Your task to perform on an android device: Go to display settings Image 0: 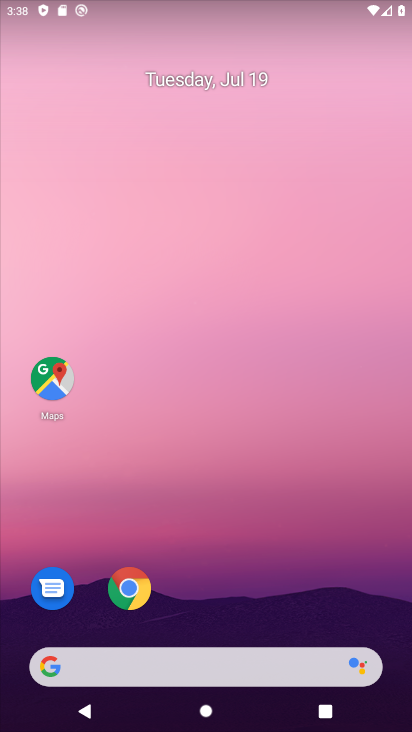
Step 0: drag from (282, 609) to (233, 44)
Your task to perform on an android device: Go to display settings Image 1: 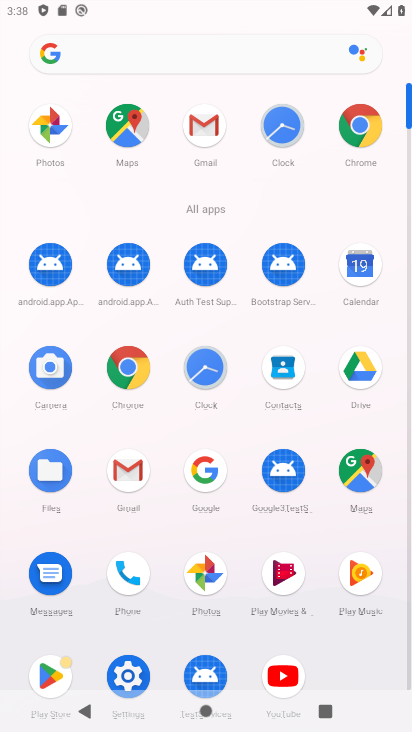
Step 1: click (127, 673)
Your task to perform on an android device: Go to display settings Image 2: 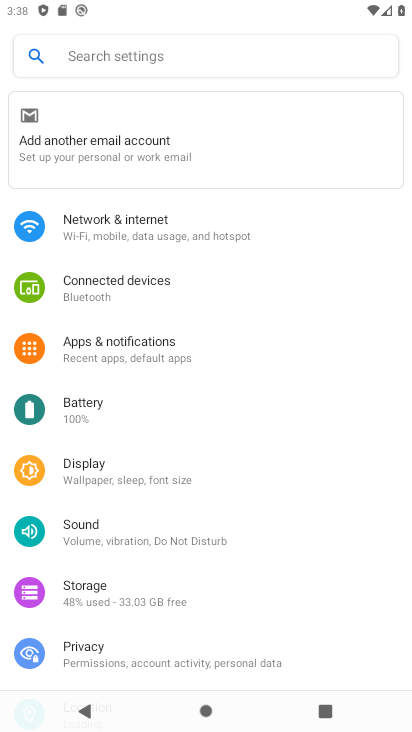
Step 2: click (138, 478)
Your task to perform on an android device: Go to display settings Image 3: 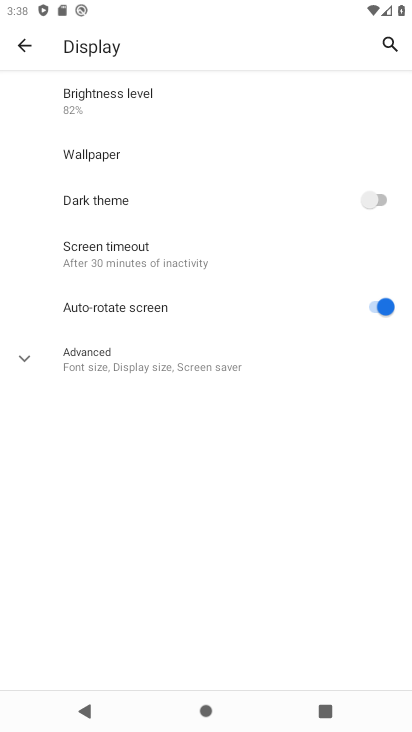
Step 3: task complete